Your task to perform on an android device: toggle notification dots Image 0: 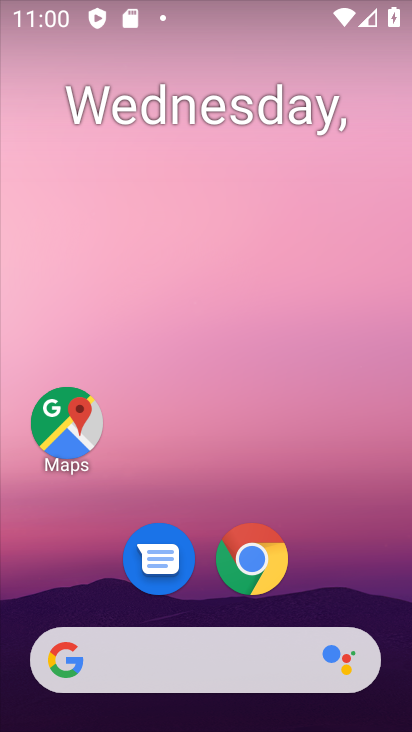
Step 0: drag from (343, 605) to (215, 185)
Your task to perform on an android device: toggle notification dots Image 1: 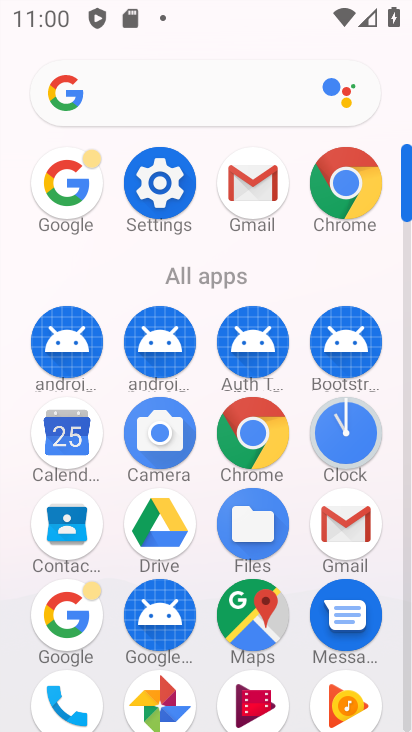
Step 1: click (175, 184)
Your task to perform on an android device: toggle notification dots Image 2: 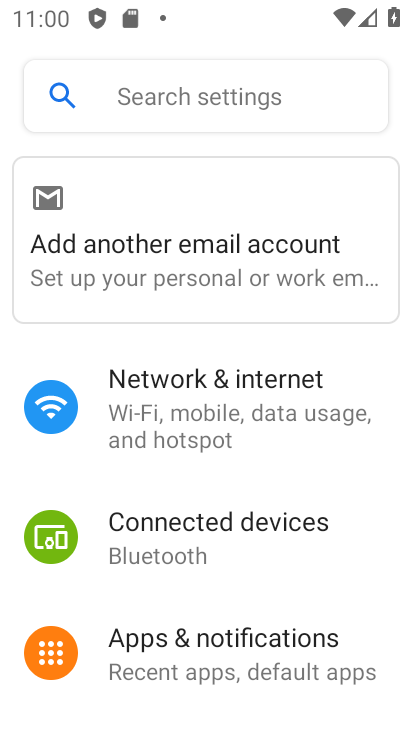
Step 2: click (248, 636)
Your task to perform on an android device: toggle notification dots Image 3: 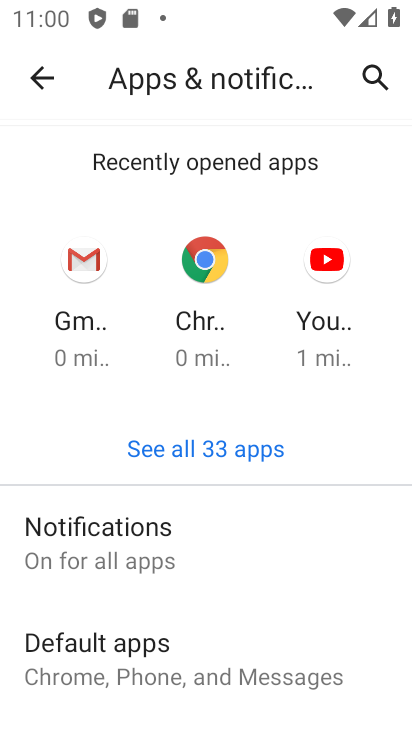
Step 3: drag from (248, 636) to (258, 415)
Your task to perform on an android device: toggle notification dots Image 4: 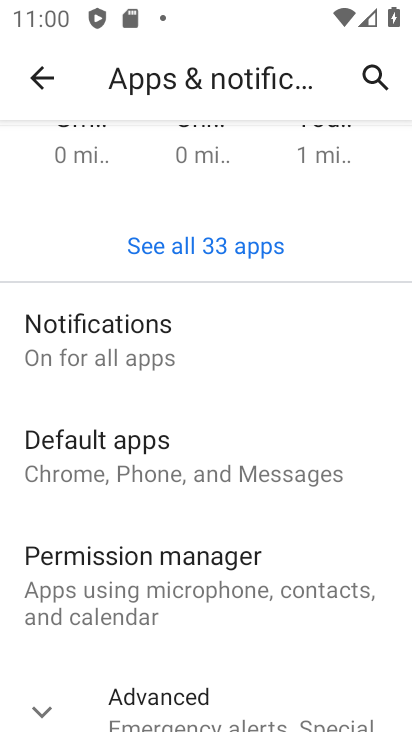
Step 4: click (226, 349)
Your task to perform on an android device: toggle notification dots Image 5: 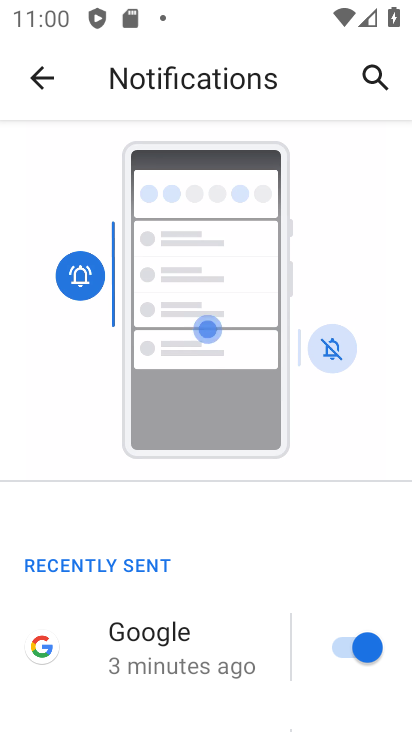
Step 5: drag from (201, 555) to (196, 178)
Your task to perform on an android device: toggle notification dots Image 6: 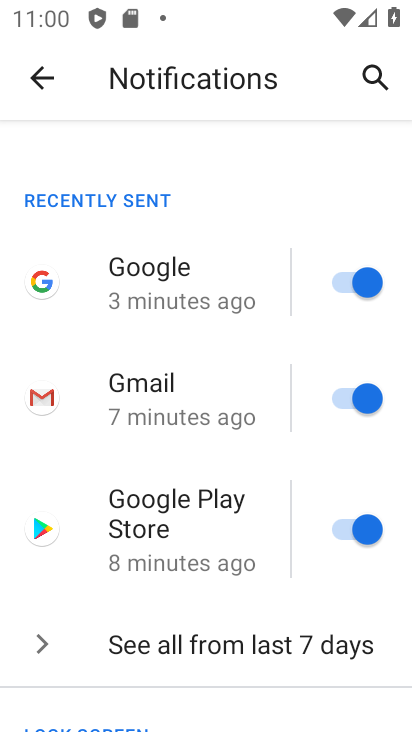
Step 6: drag from (252, 653) to (226, 354)
Your task to perform on an android device: toggle notification dots Image 7: 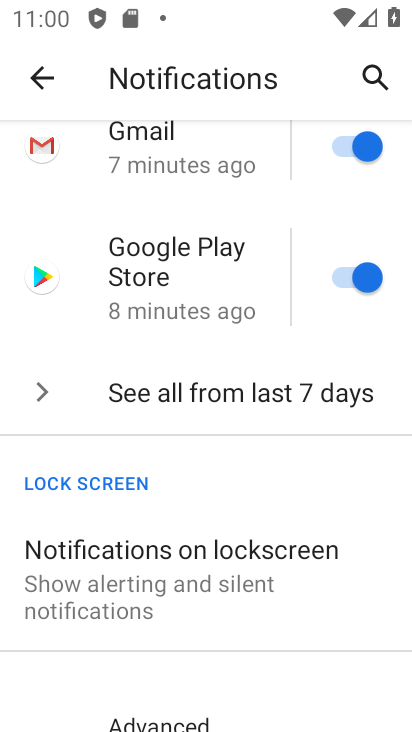
Step 7: drag from (246, 617) to (204, 431)
Your task to perform on an android device: toggle notification dots Image 8: 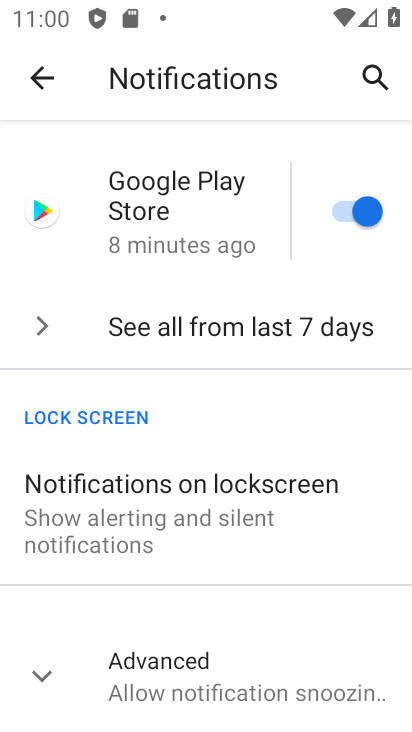
Step 8: click (188, 643)
Your task to perform on an android device: toggle notification dots Image 9: 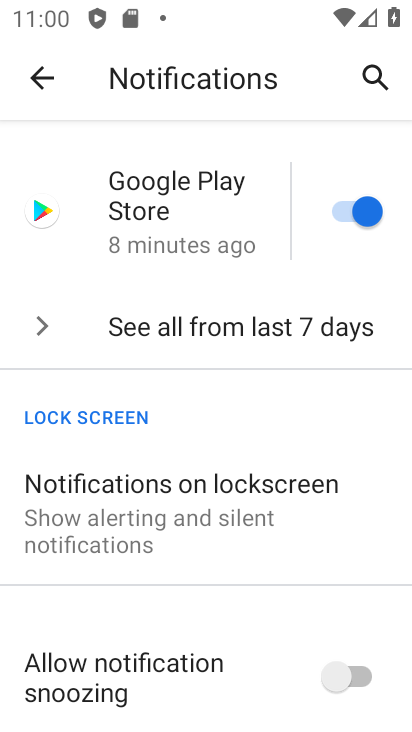
Step 9: drag from (245, 677) to (226, 370)
Your task to perform on an android device: toggle notification dots Image 10: 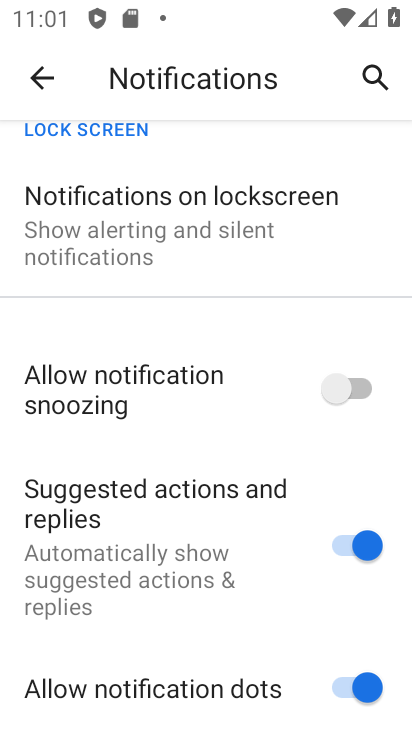
Step 10: click (359, 681)
Your task to perform on an android device: toggle notification dots Image 11: 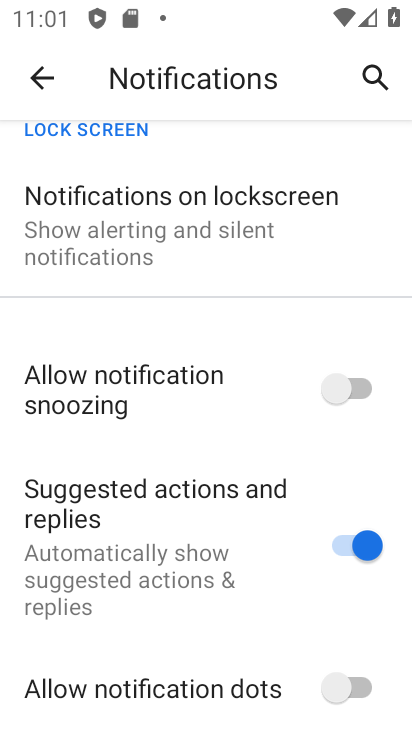
Step 11: task complete